Your task to perform on an android device: set the stopwatch Image 0: 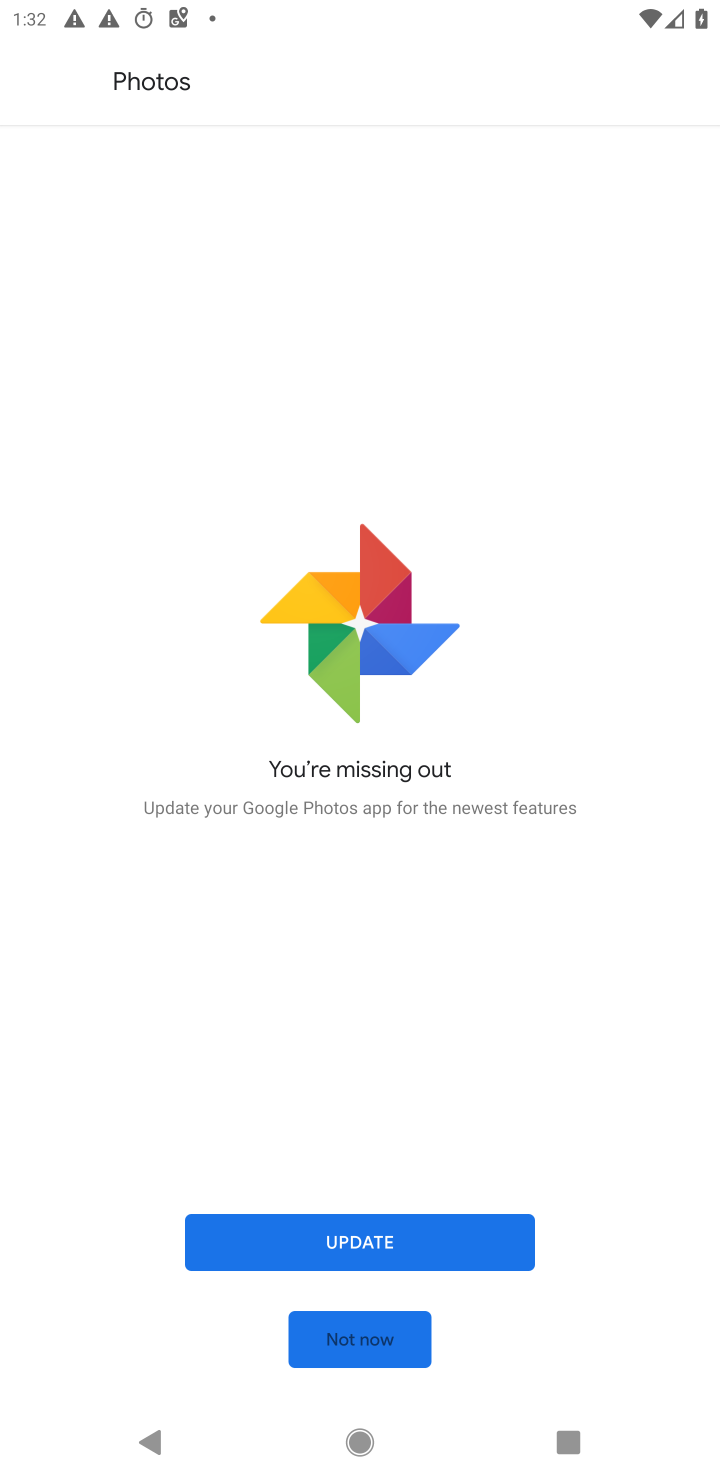
Step 0: click (357, 1346)
Your task to perform on an android device: set the stopwatch Image 1: 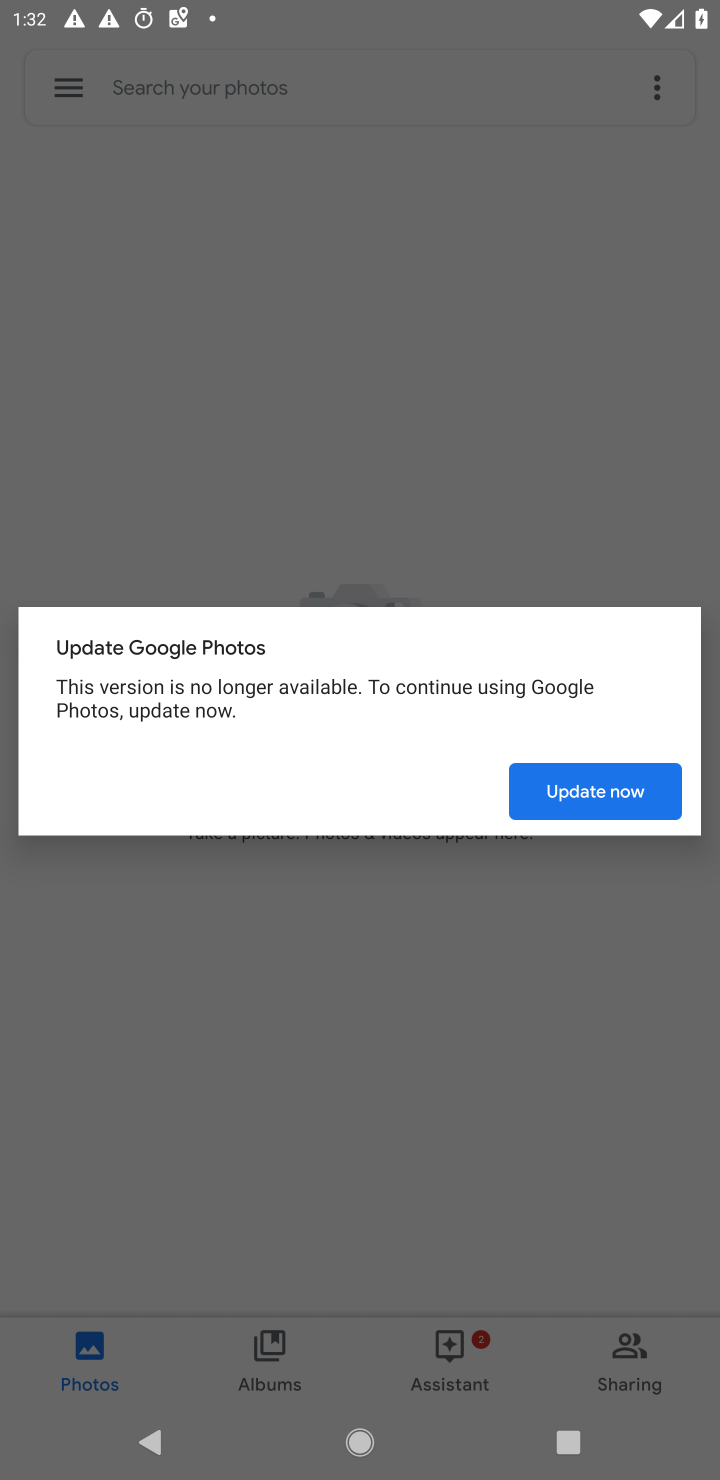
Step 1: press home button
Your task to perform on an android device: set the stopwatch Image 2: 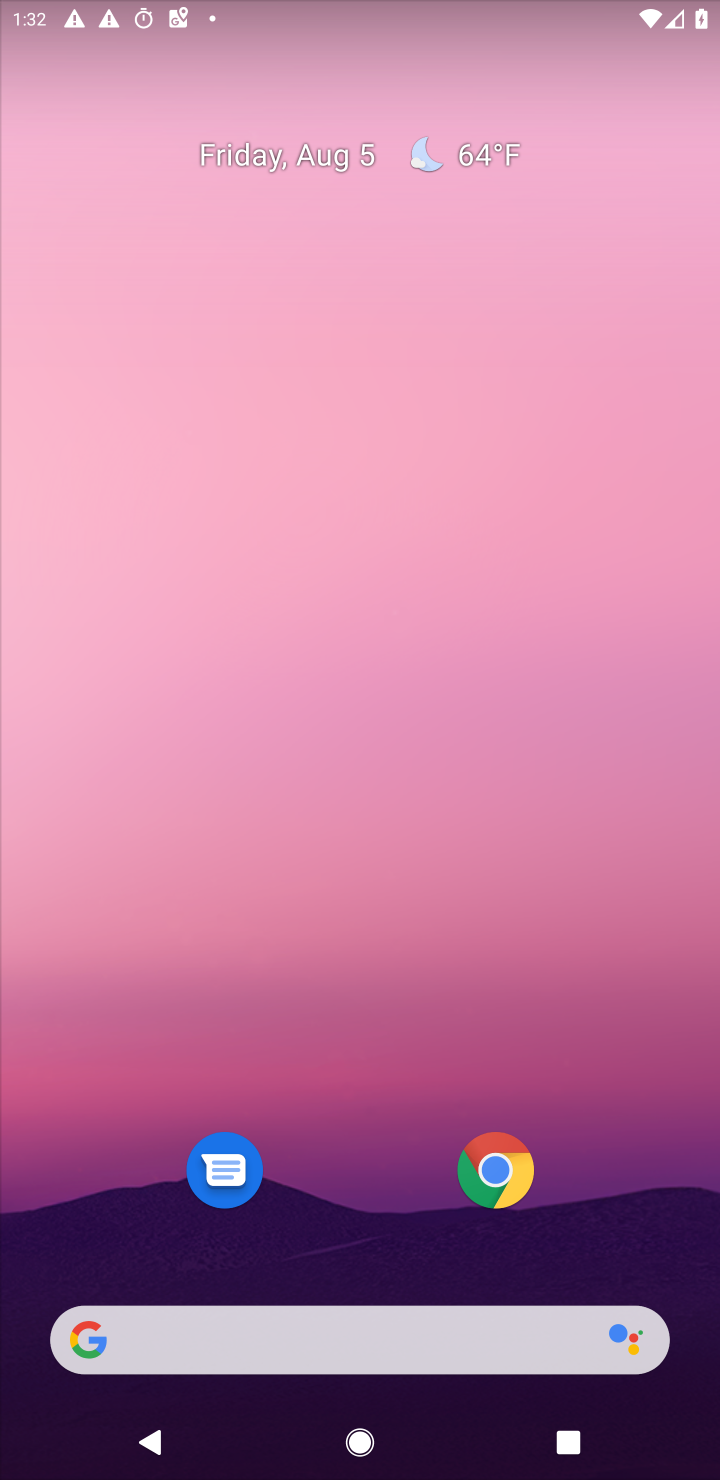
Step 2: drag from (355, 1256) to (130, 584)
Your task to perform on an android device: set the stopwatch Image 3: 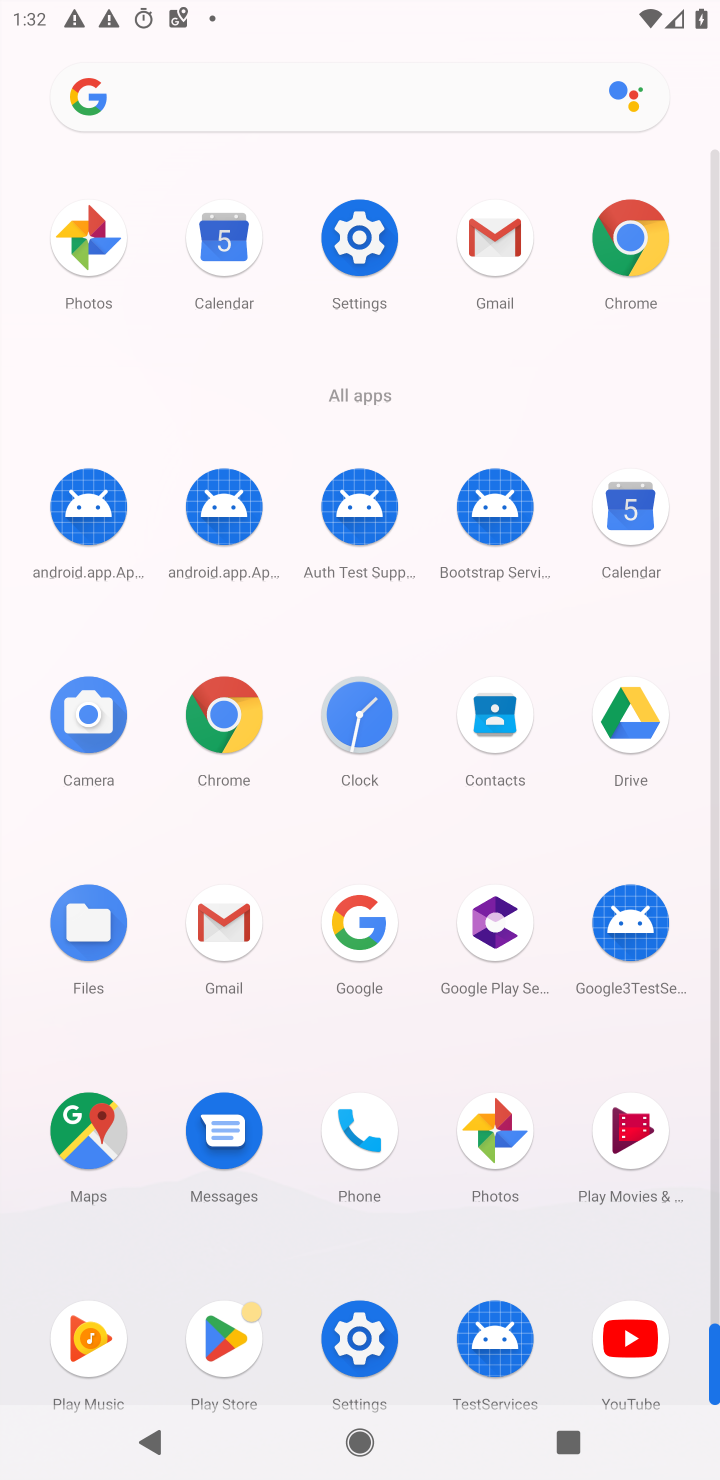
Step 3: click (347, 723)
Your task to perform on an android device: set the stopwatch Image 4: 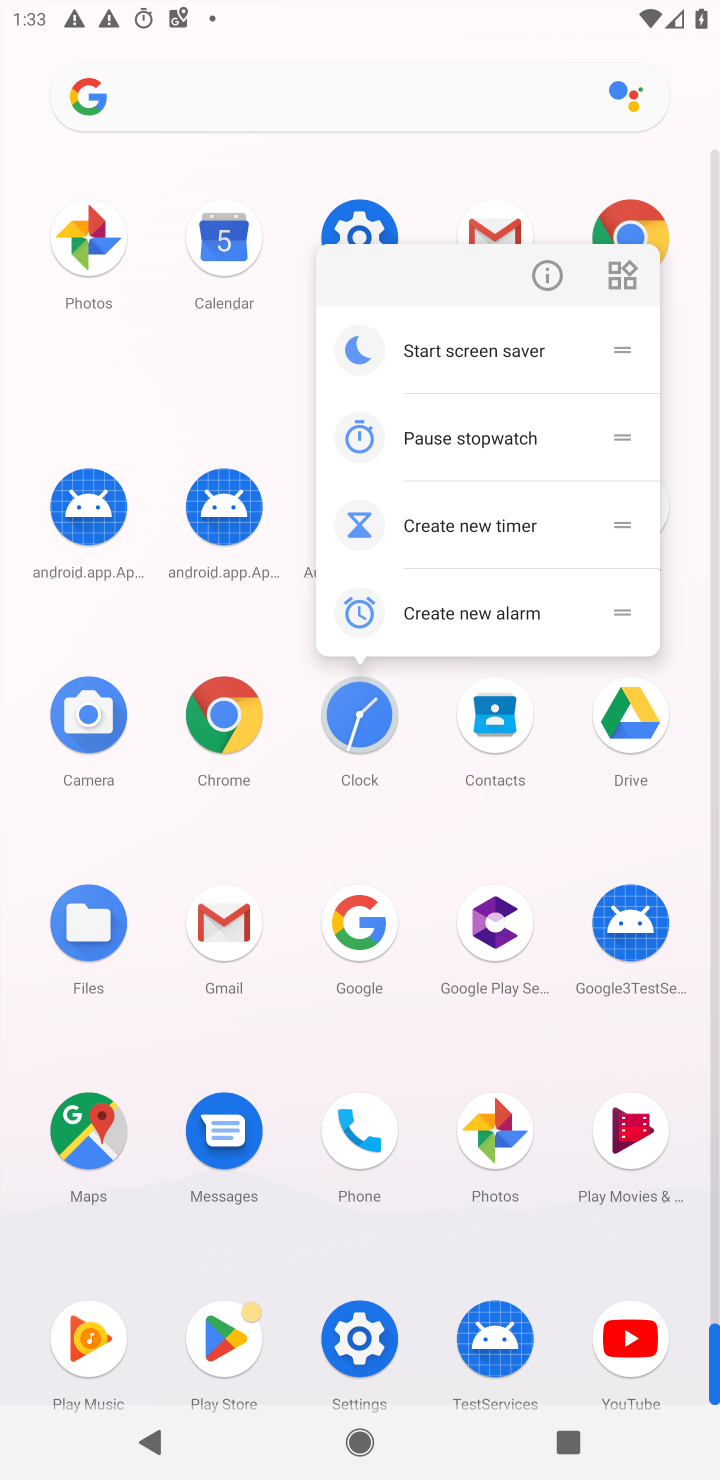
Step 4: click (360, 727)
Your task to perform on an android device: set the stopwatch Image 5: 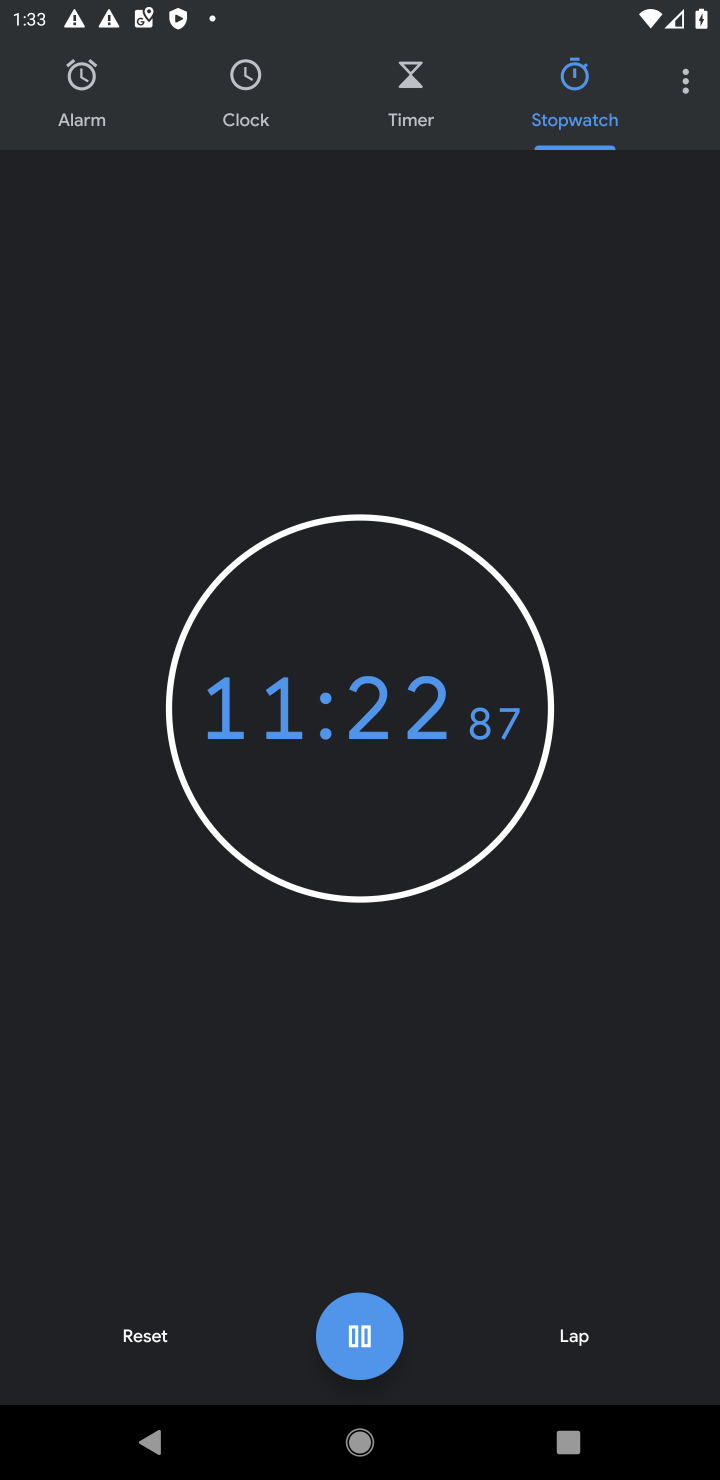
Step 5: click (338, 1343)
Your task to perform on an android device: set the stopwatch Image 6: 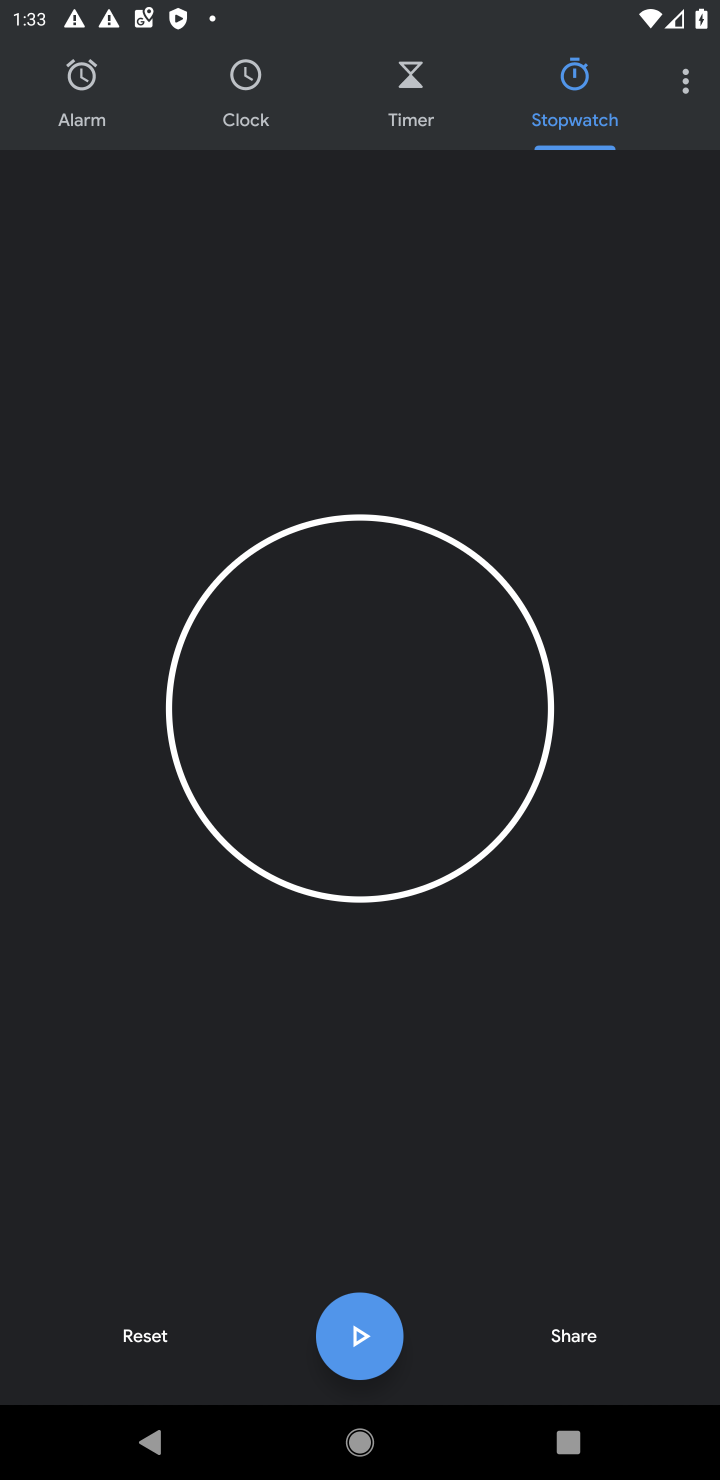
Step 6: click (160, 1345)
Your task to perform on an android device: set the stopwatch Image 7: 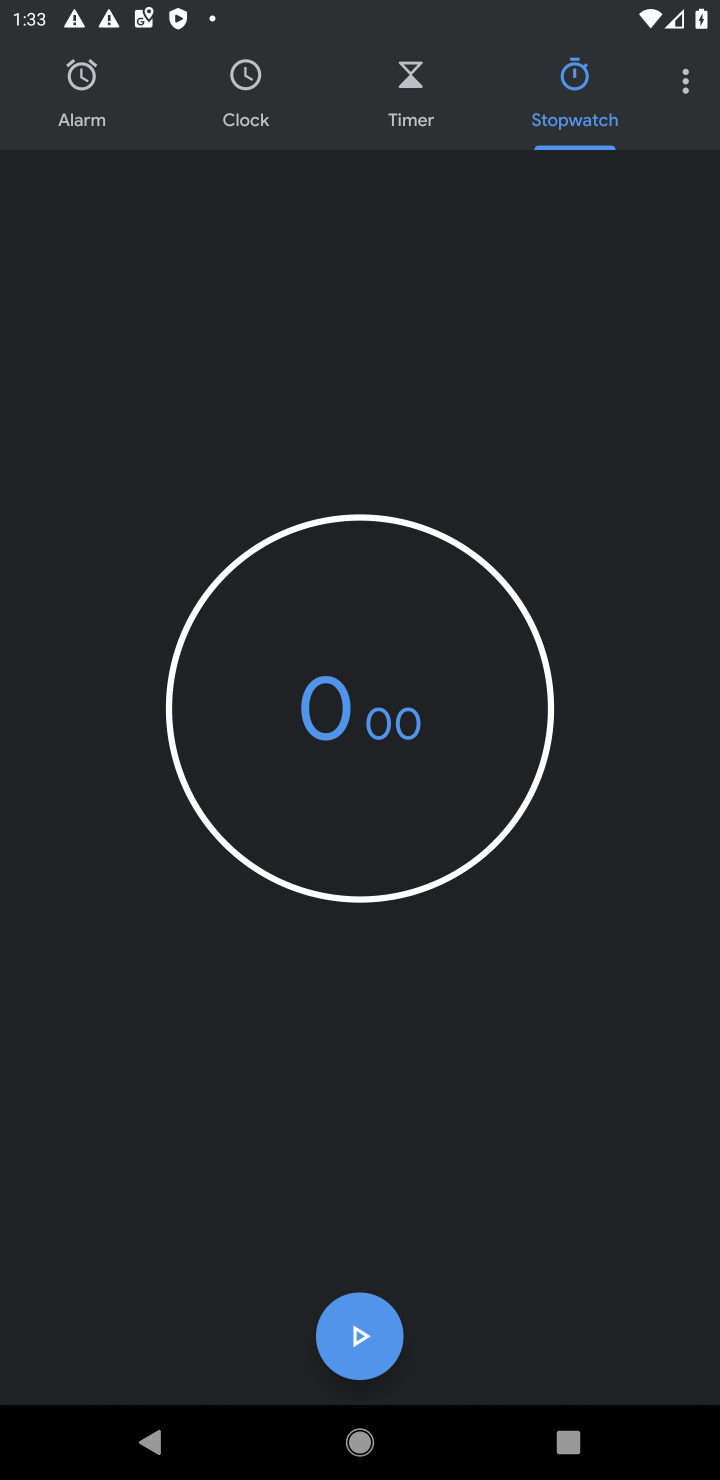
Step 7: click (364, 1342)
Your task to perform on an android device: set the stopwatch Image 8: 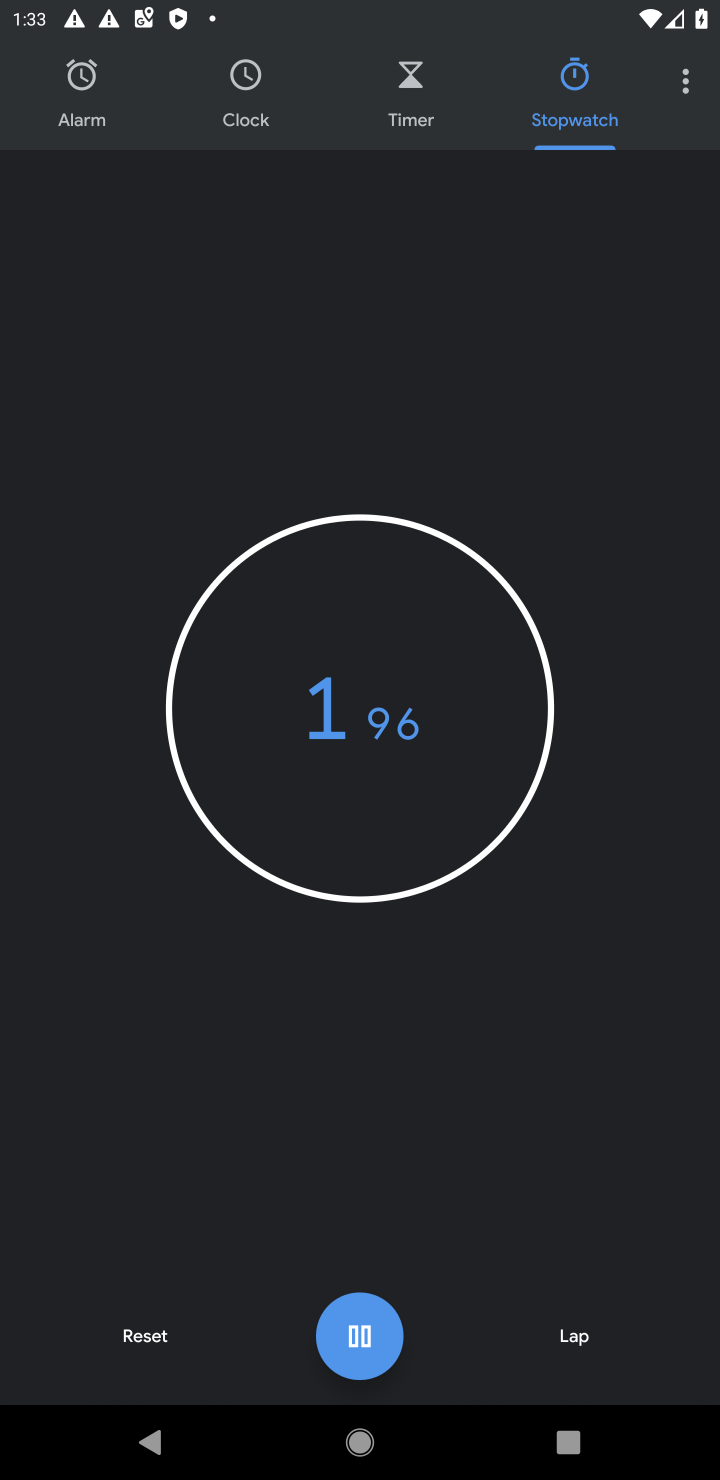
Step 8: task complete